Your task to perform on an android device: open a bookmark in the chrome app Image 0: 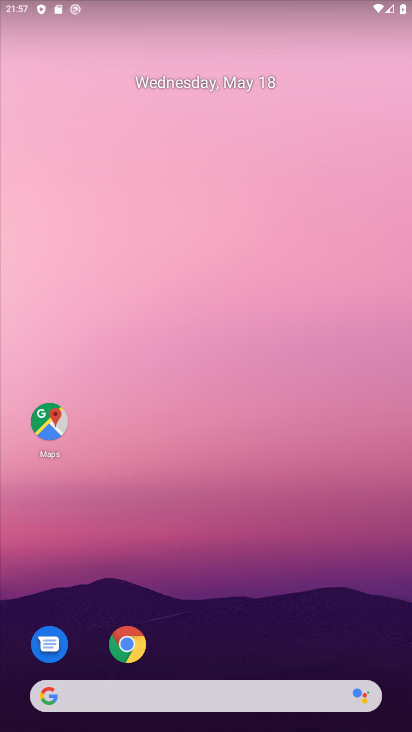
Step 0: click (131, 638)
Your task to perform on an android device: open a bookmark in the chrome app Image 1: 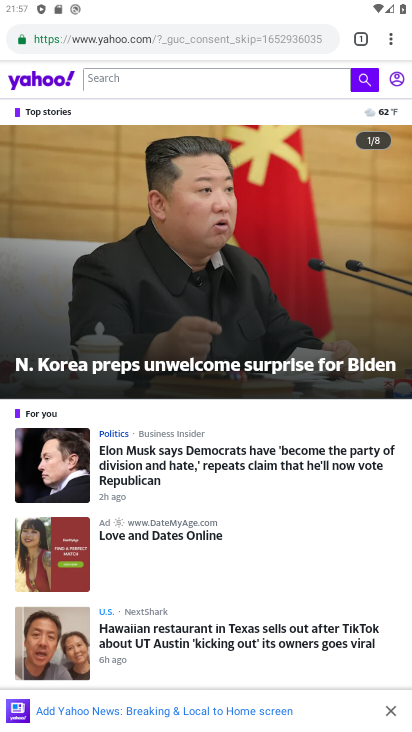
Step 1: task complete